Your task to perform on an android device: turn off notifications settings in the gmail app Image 0: 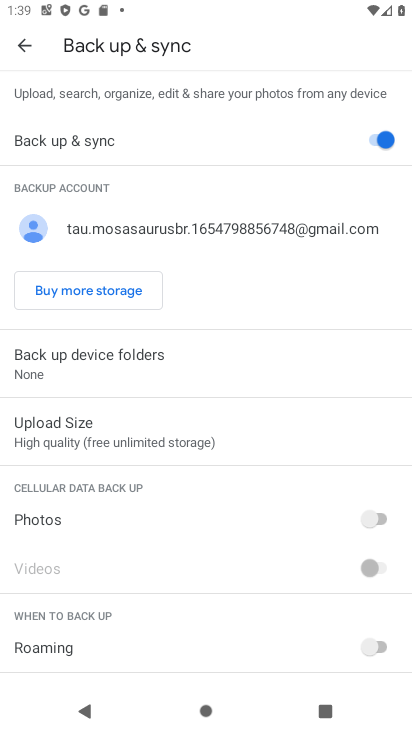
Step 0: task complete